Your task to perform on an android device: turn off notifications in google photos Image 0: 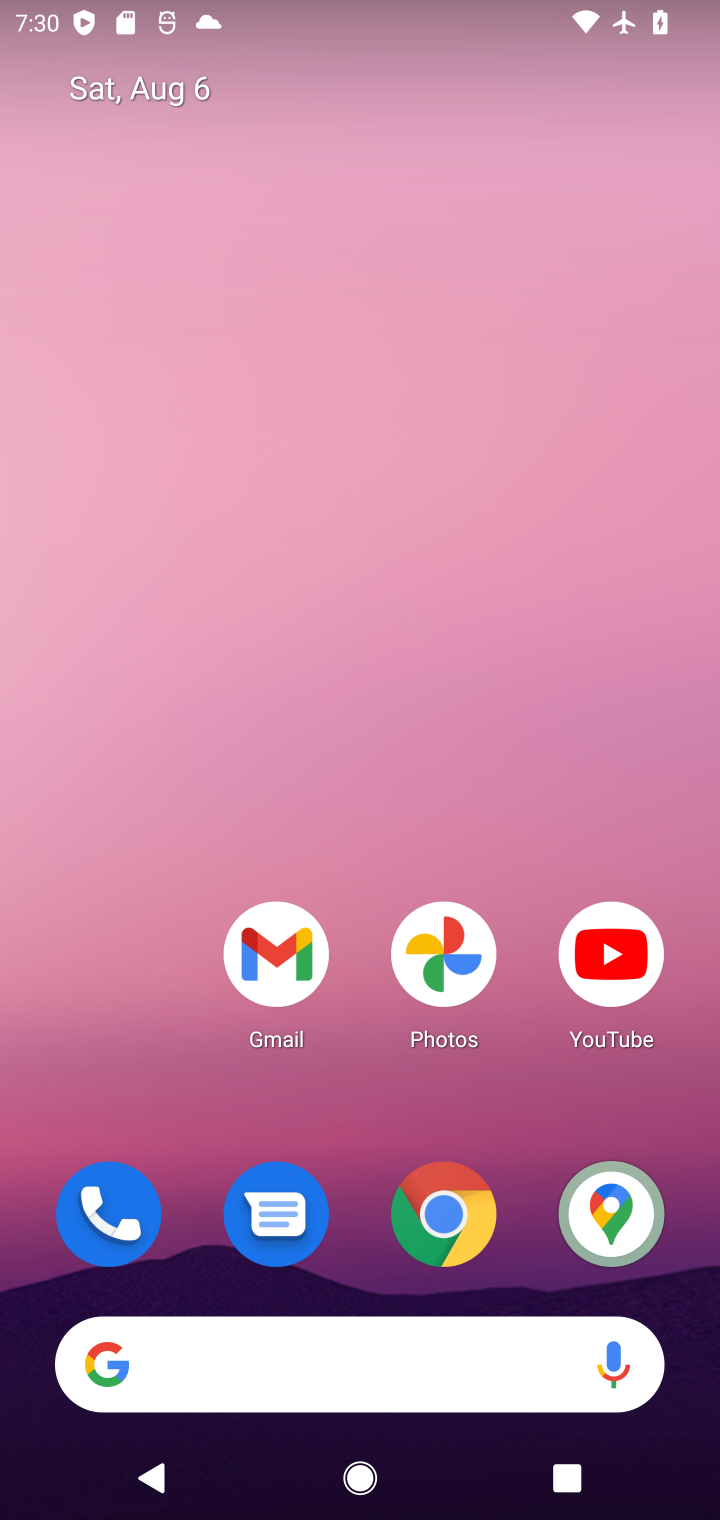
Step 0: drag from (346, 1276) to (606, 0)
Your task to perform on an android device: turn off notifications in google photos Image 1: 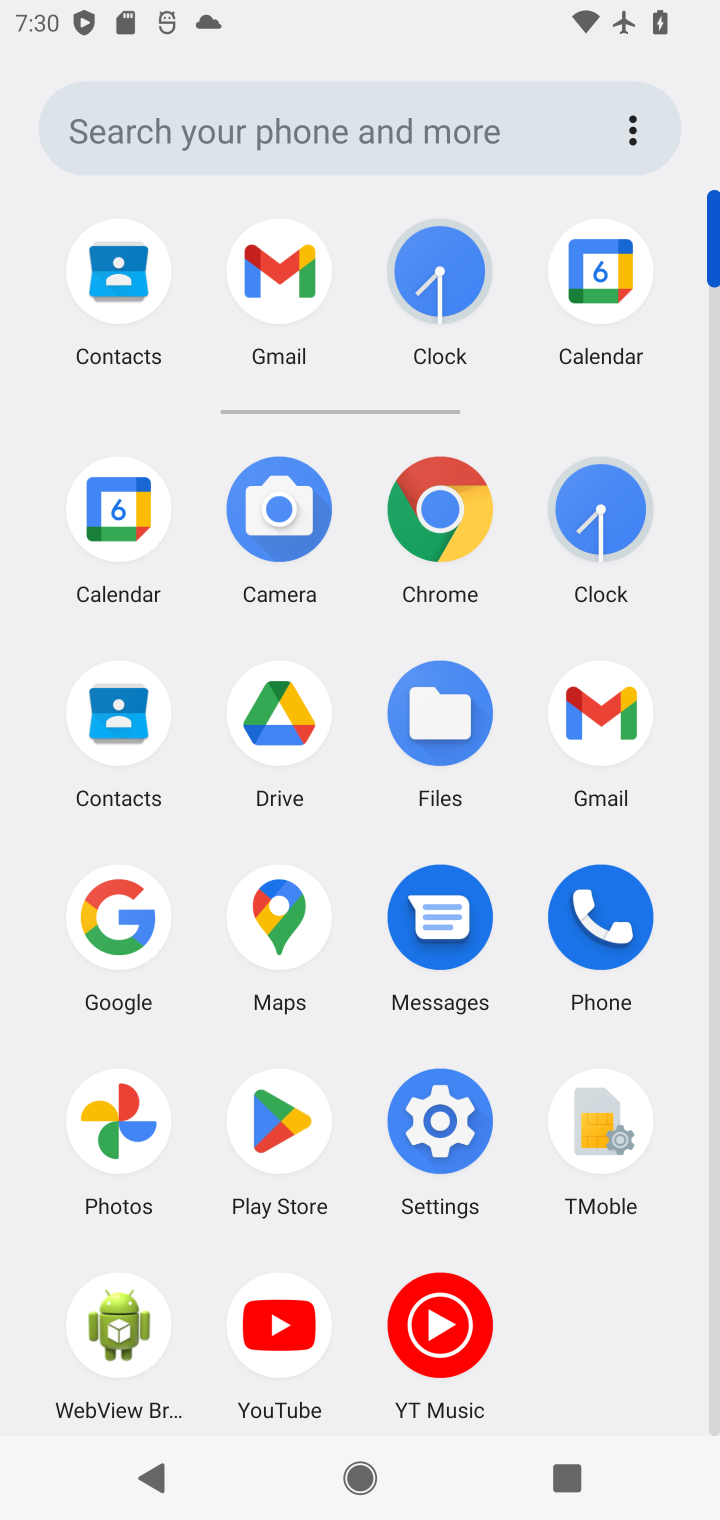
Step 1: click (118, 1166)
Your task to perform on an android device: turn off notifications in google photos Image 2: 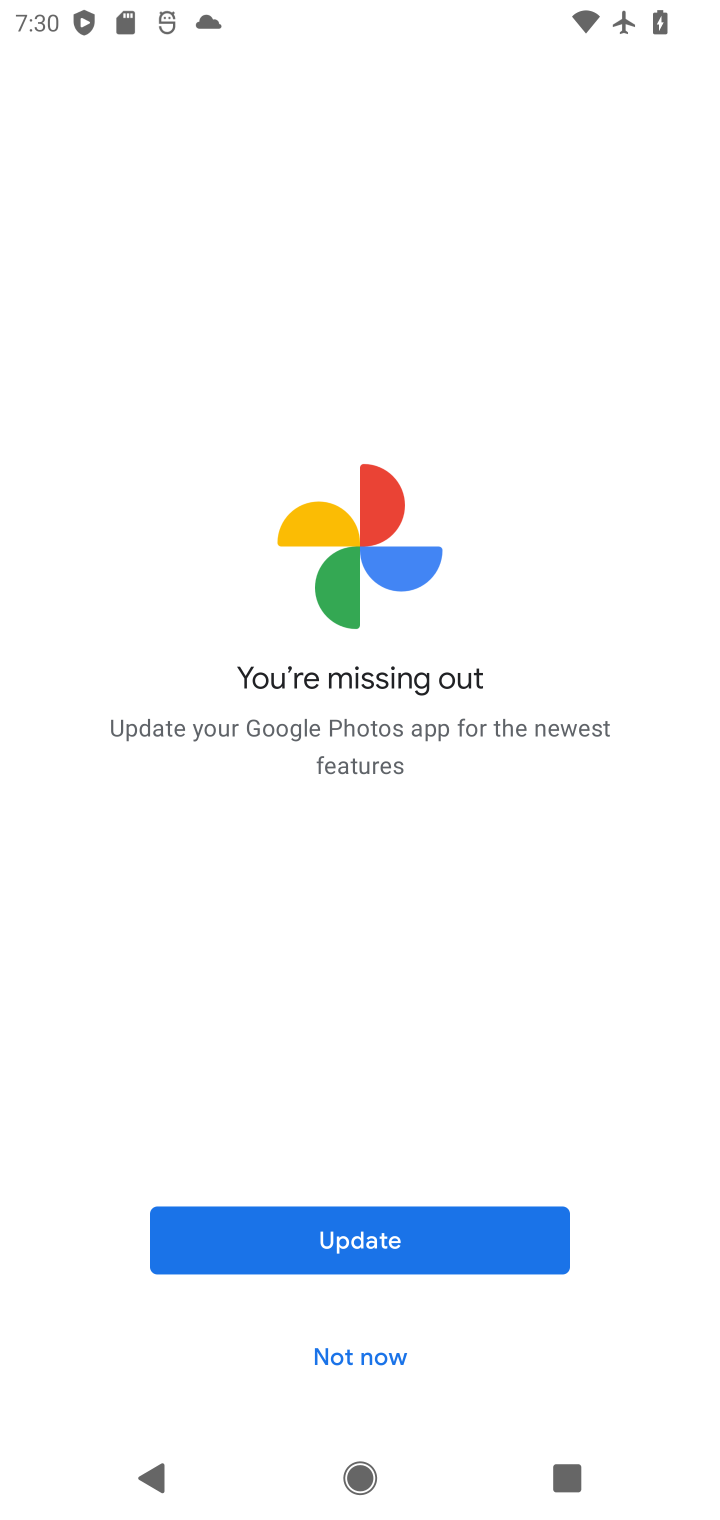
Step 2: click (383, 1354)
Your task to perform on an android device: turn off notifications in google photos Image 3: 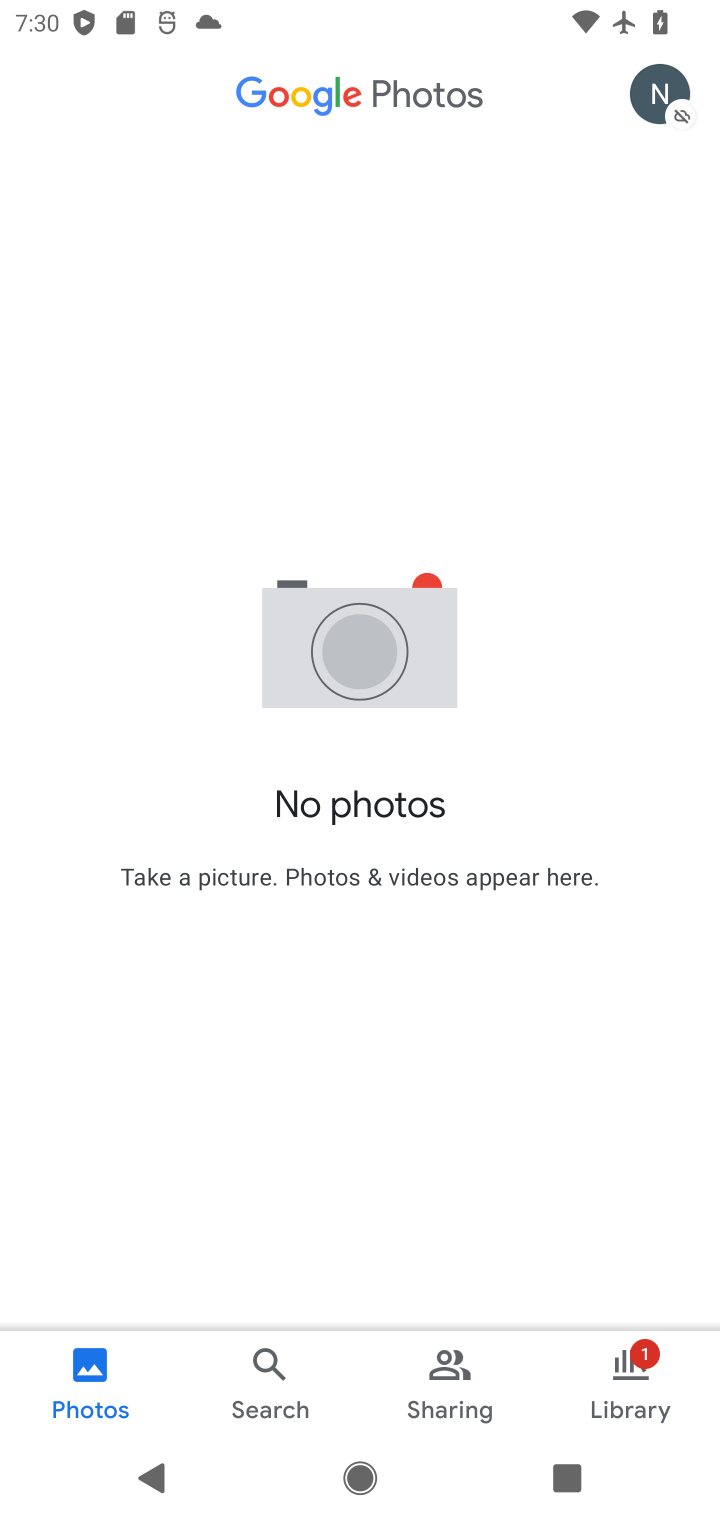
Step 3: click (650, 94)
Your task to perform on an android device: turn off notifications in google photos Image 4: 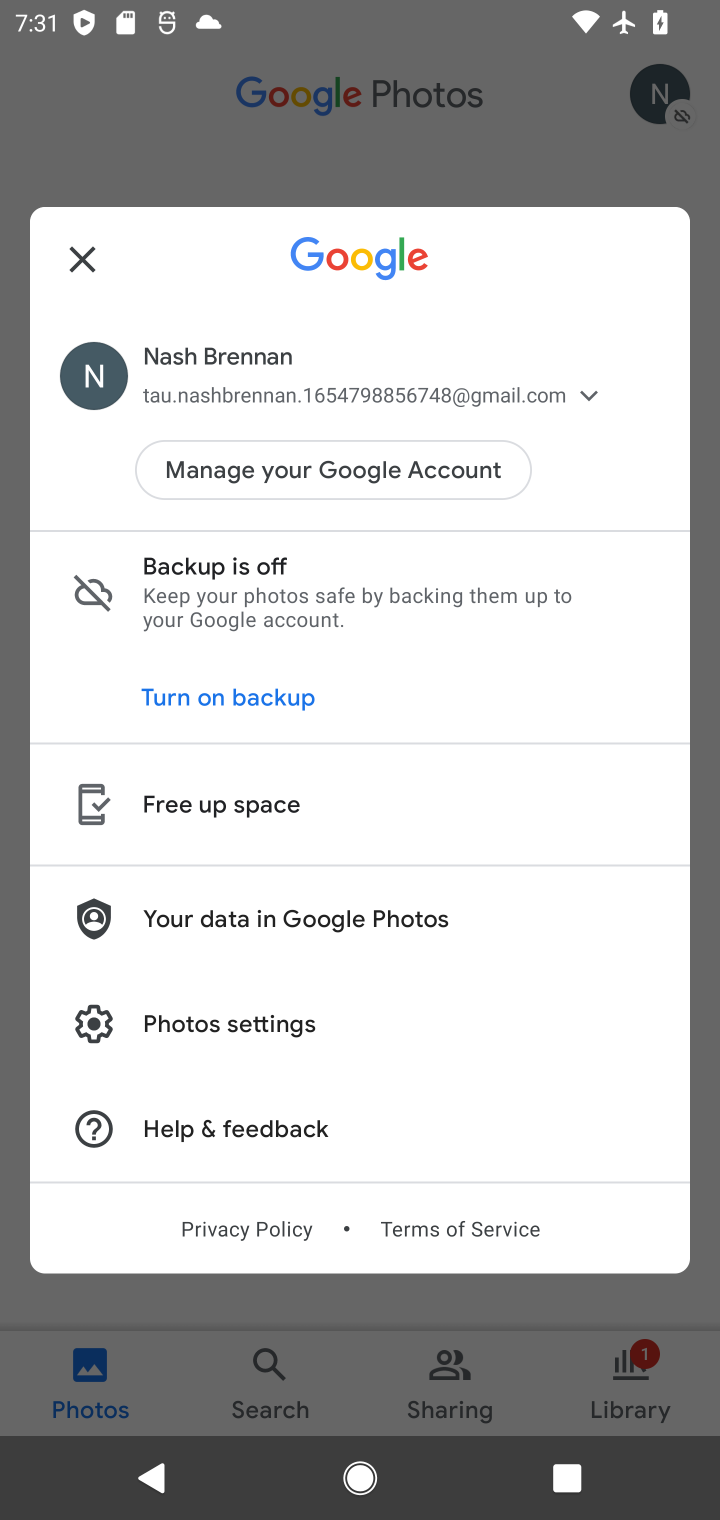
Step 4: click (226, 1030)
Your task to perform on an android device: turn off notifications in google photos Image 5: 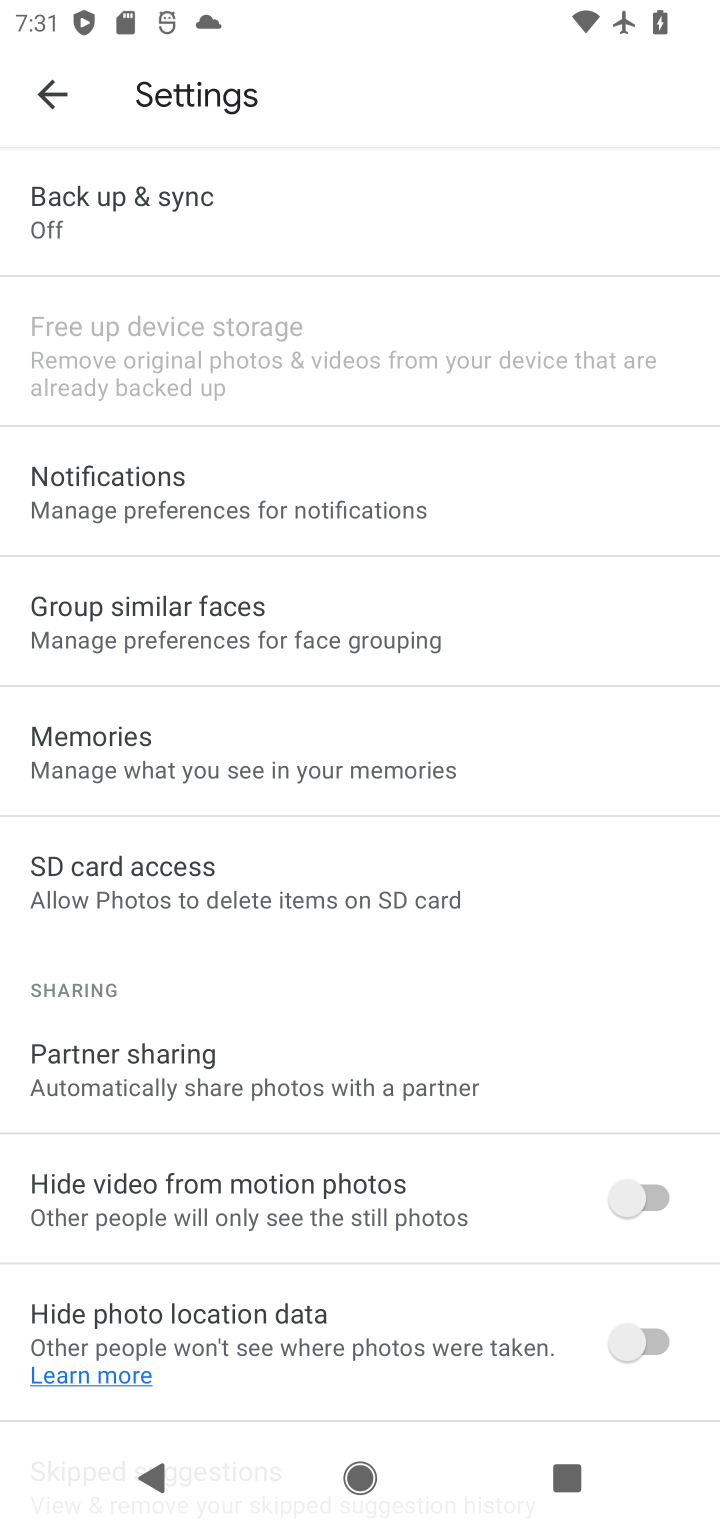
Step 5: click (164, 491)
Your task to perform on an android device: turn off notifications in google photos Image 6: 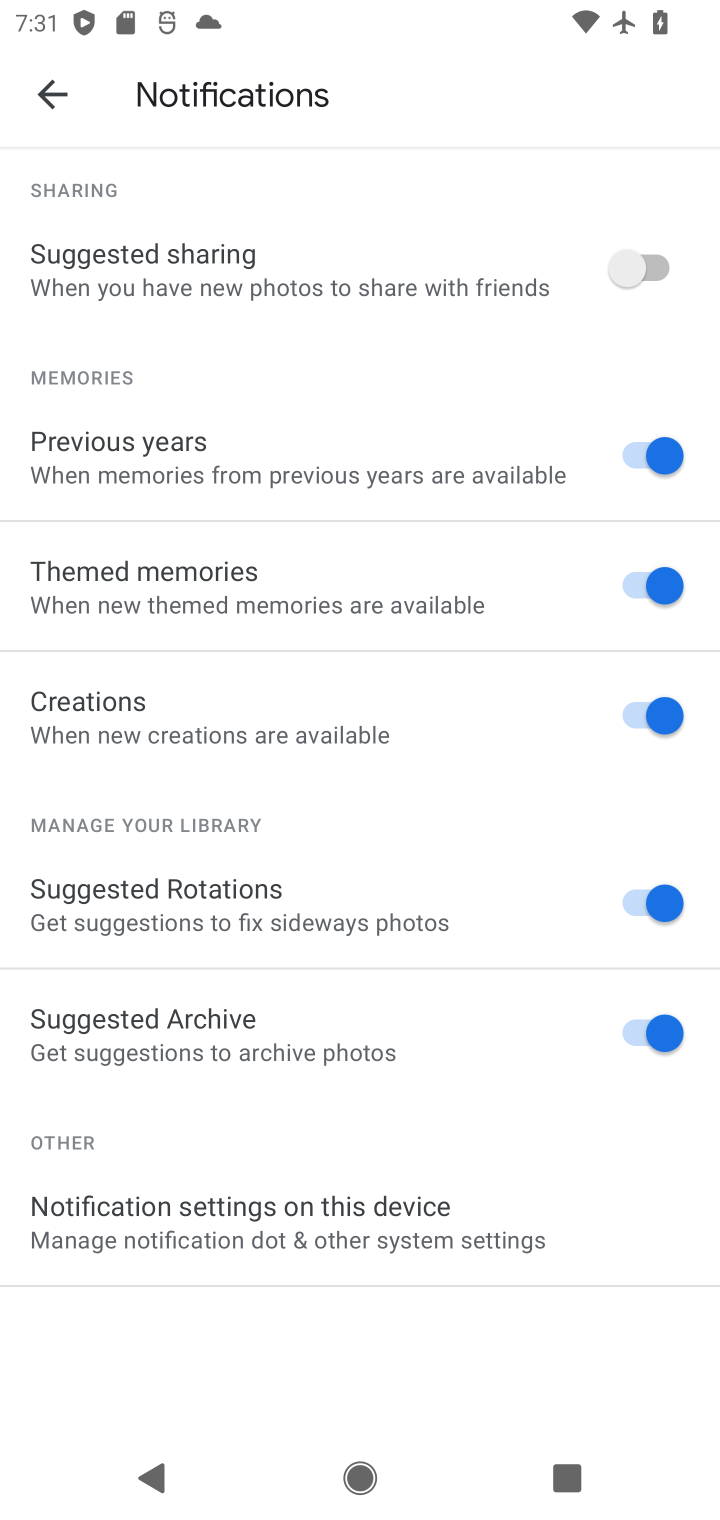
Step 6: drag from (136, 372) to (126, 1460)
Your task to perform on an android device: turn off notifications in google photos Image 7: 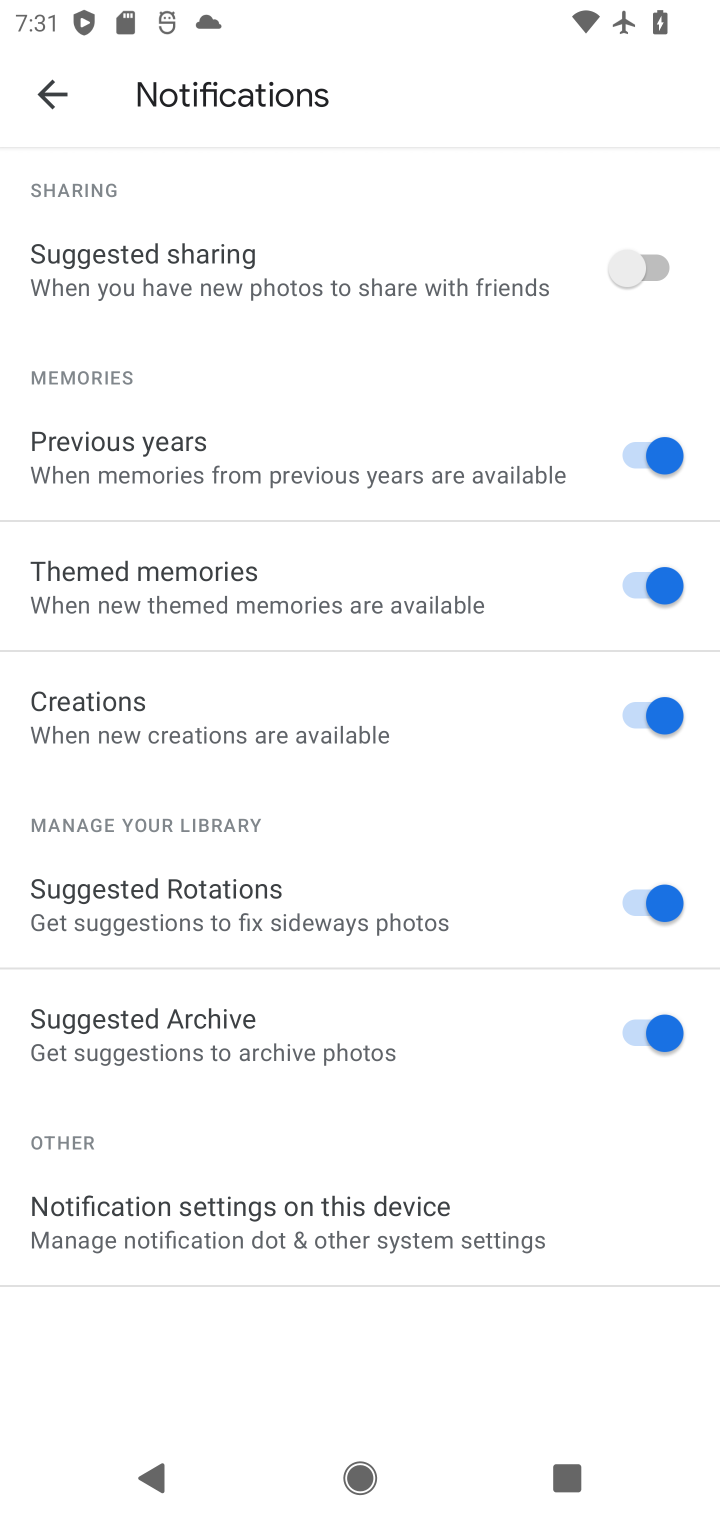
Step 7: click (128, 1234)
Your task to perform on an android device: turn off notifications in google photos Image 8: 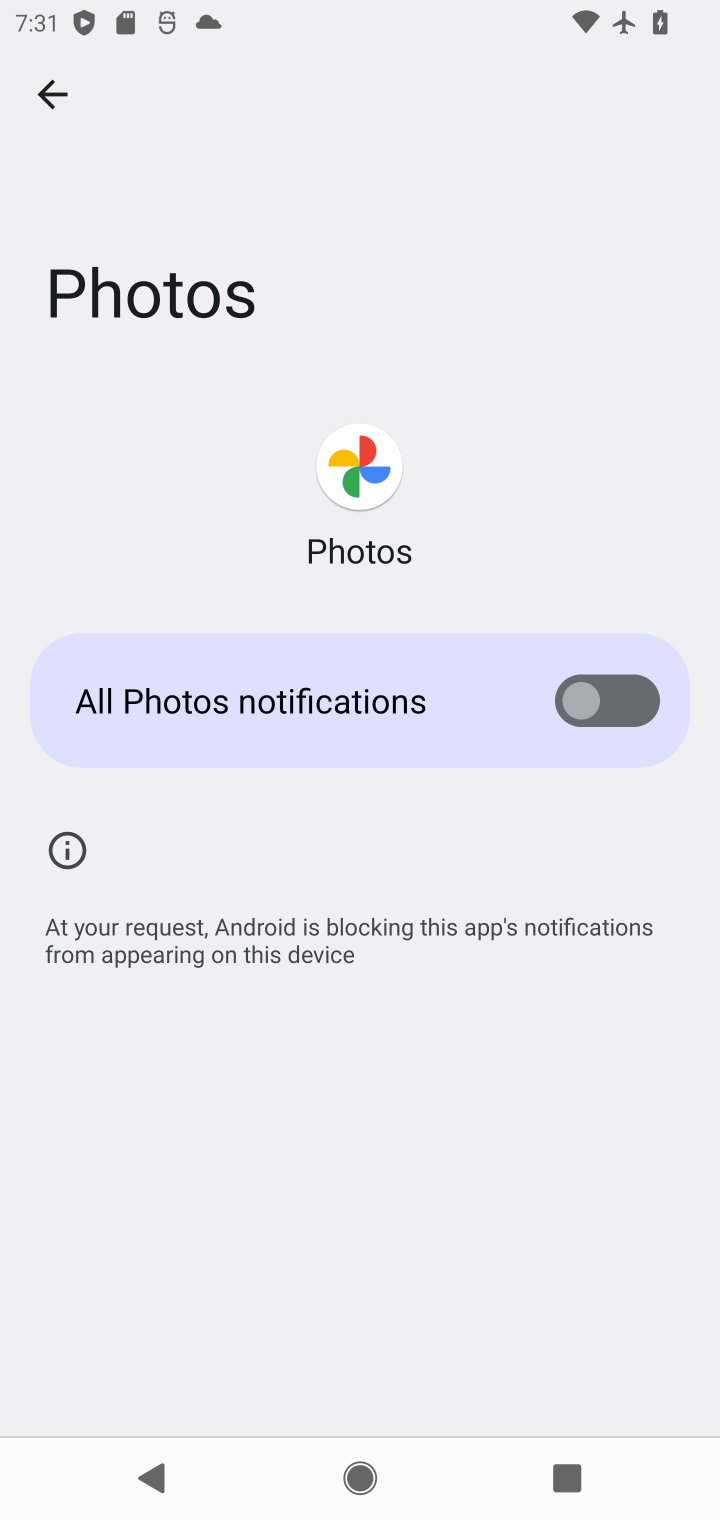
Step 8: task complete